Your task to perform on an android device: turn off translation in the chrome app Image 0: 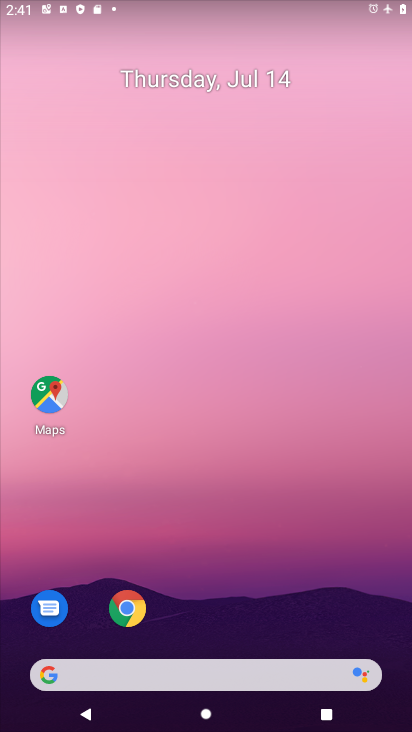
Step 0: click (128, 610)
Your task to perform on an android device: turn off translation in the chrome app Image 1: 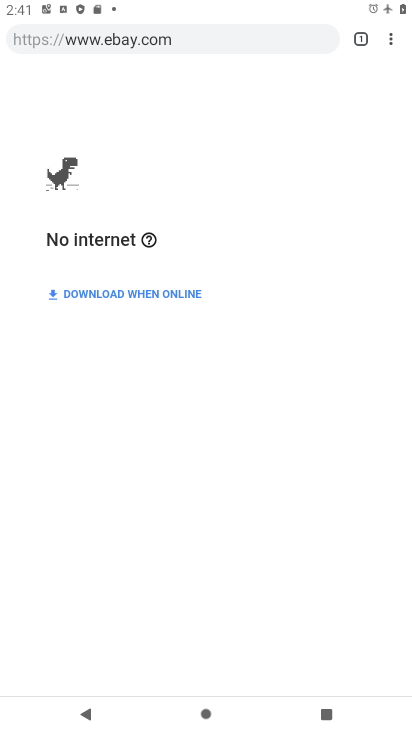
Step 1: click (390, 46)
Your task to perform on an android device: turn off translation in the chrome app Image 2: 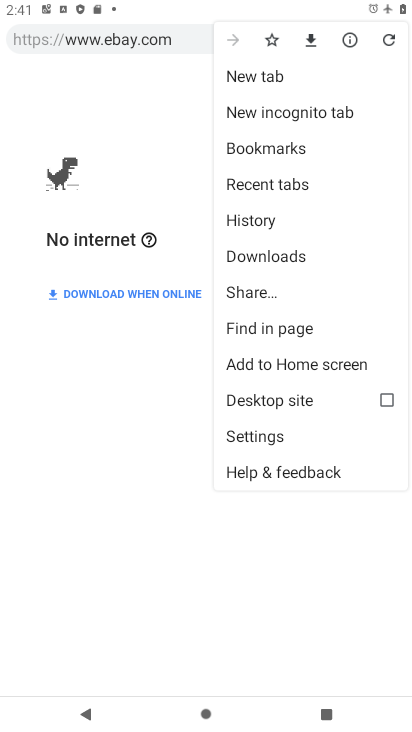
Step 2: click (264, 434)
Your task to perform on an android device: turn off translation in the chrome app Image 3: 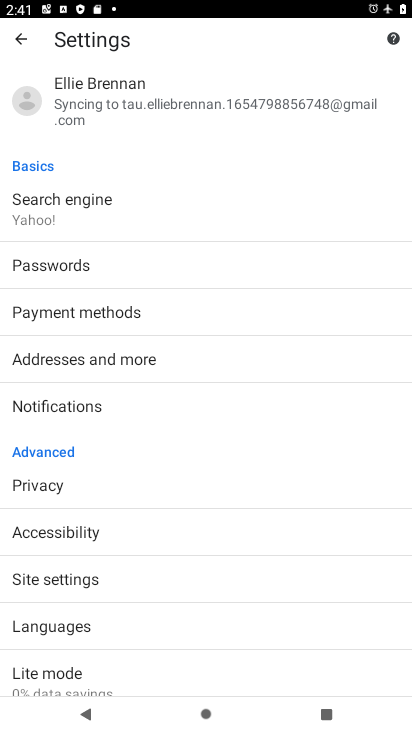
Step 3: click (44, 624)
Your task to perform on an android device: turn off translation in the chrome app Image 4: 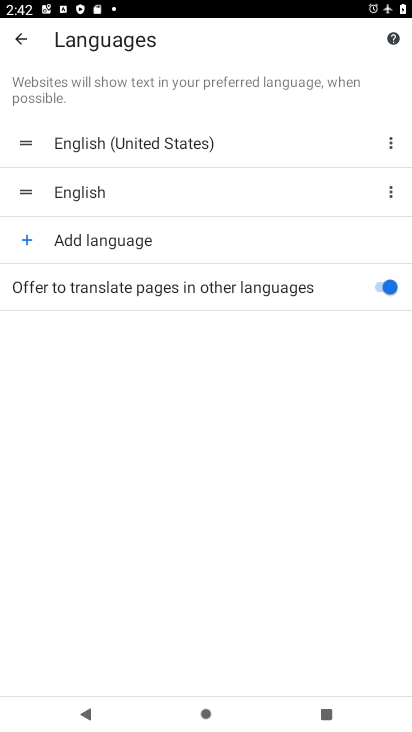
Step 4: click (376, 284)
Your task to perform on an android device: turn off translation in the chrome app Image 5: 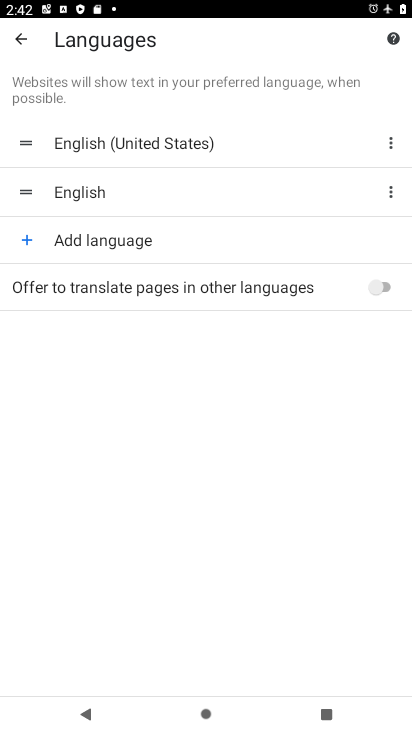
Step 5: task complete